Your task to perform on an android device: Open CNN.com Image 0: 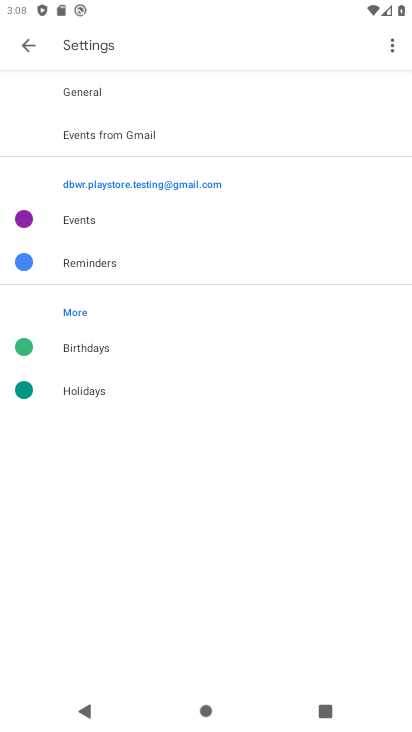
Step 0: press home button
Your task to perform on an android device: Open CNN.com Image 1: 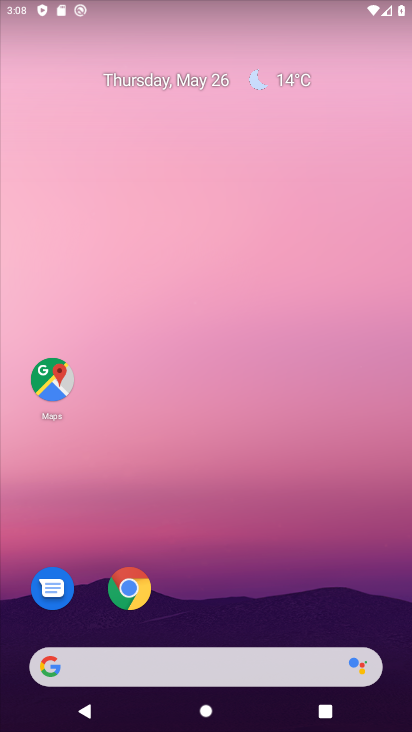
Step 1: click (139, 582)
Your task to perform on an android device: Open CNN.com Image 2: 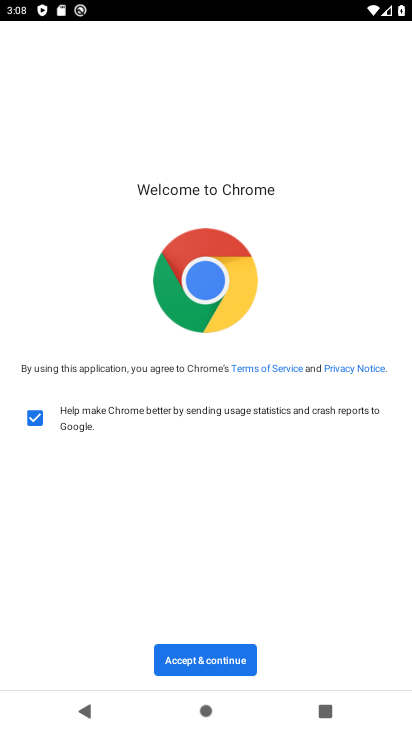
Step 2: click (205, 652)
Your task to perform on an android device: Open CNN.com Image 3: 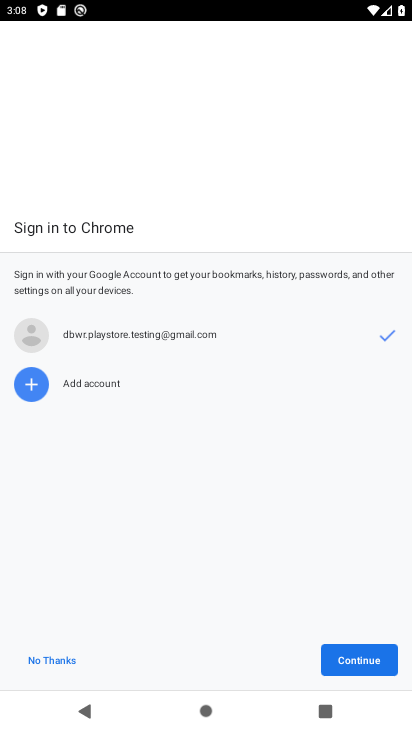
Step 3: click (205, 652)
Your task to perform on an android device: Open CNN.com Image 4: 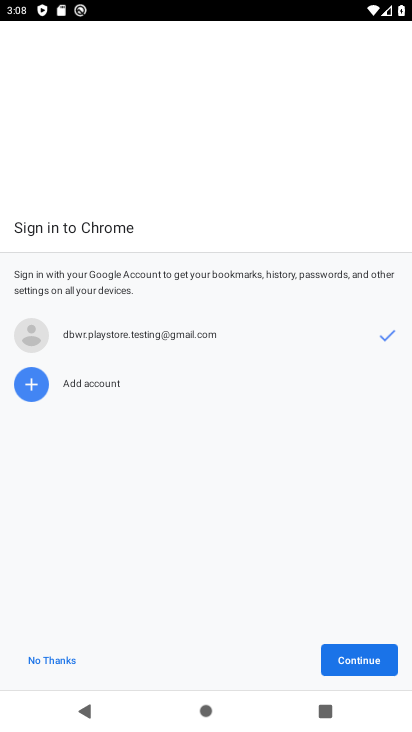
Step 4: click (354, 672)
Your task to perform on an android device: Open CNN.com Image 5: 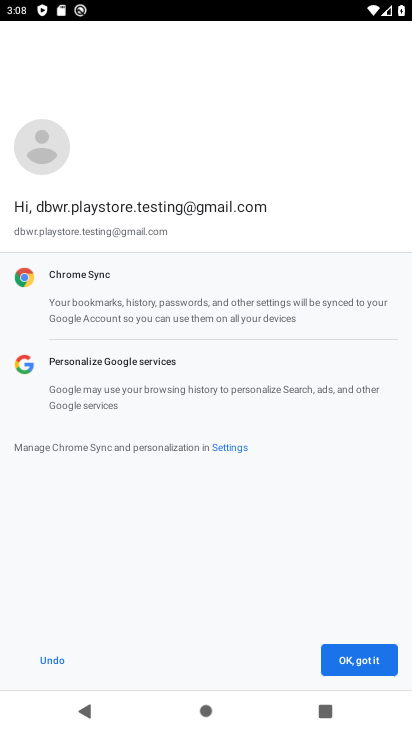
Step 5: click (354, 672)
Your task to perform on an android device: Open CNN.com Image 6: 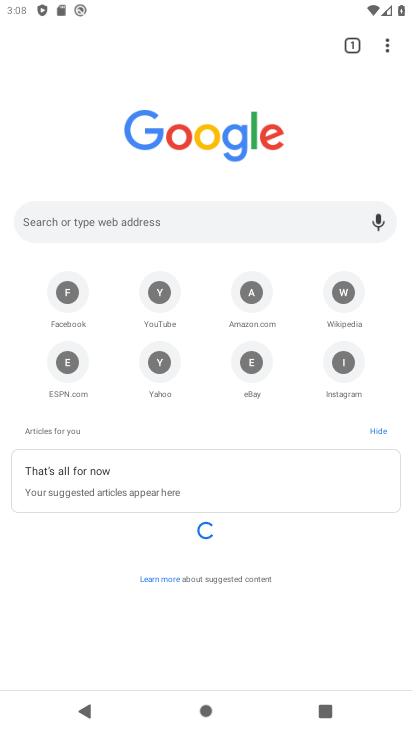
Step 6: click (181, 225)
Your task to perform on an android device: Open CNN.com Image 7: 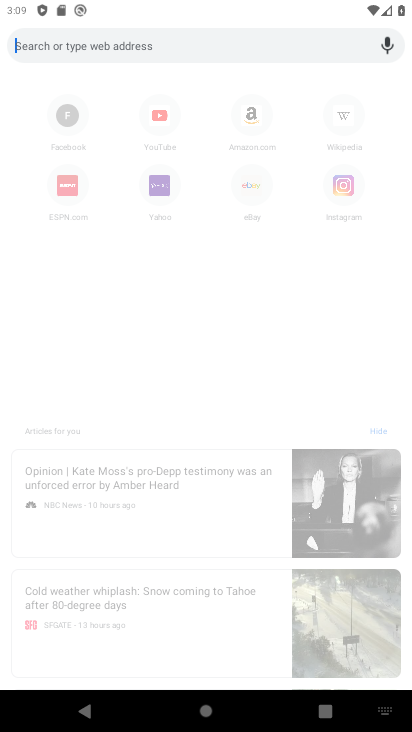
Step 7: type "cnn.com"
Your task to perform on an android device: Open CNN.com Image 8: 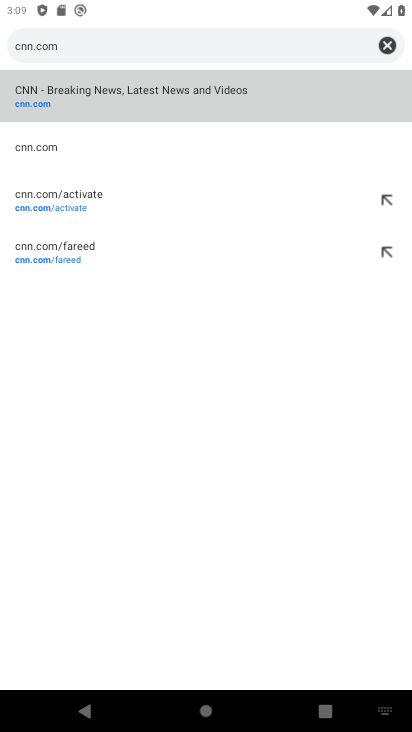
Step 8: click (145, 109)
Your task to perform on an android device: Open CNN.com Image 9: 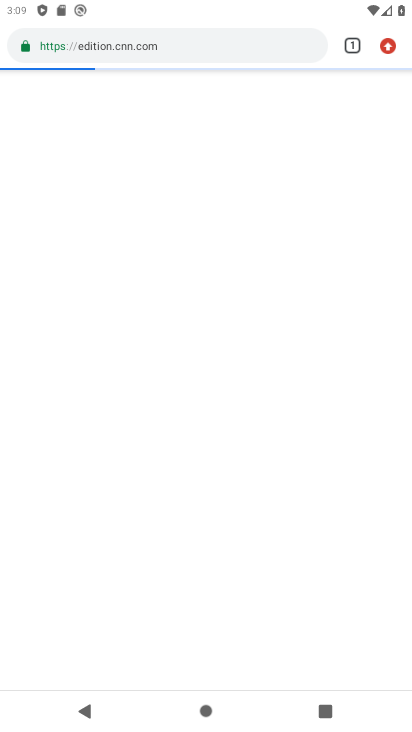
Step 9: task complete